Your task to perform on an android device: toggle show notifications on the lock screen Image 0: 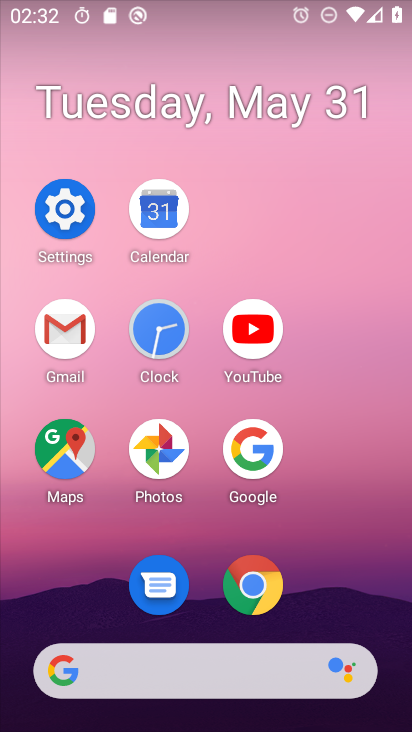
Step 0: click (52, 205)
Your task to perform on an android device: toggle show notifications on the lock screen Image 1: 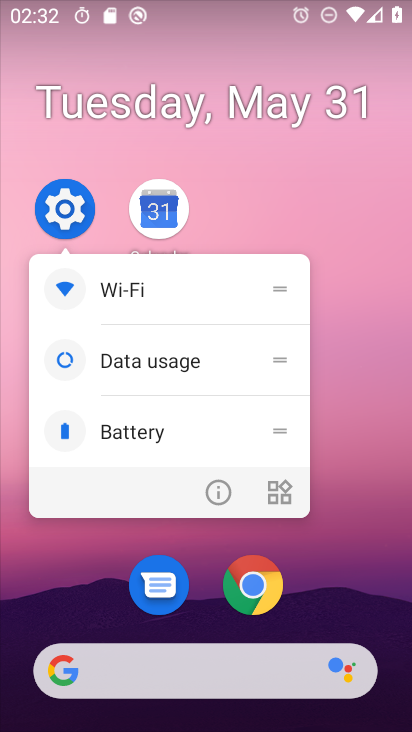
Step 1: click (63, 191)
Your task to perform on an android device: toggle show notifications on the lock screen Image 2: 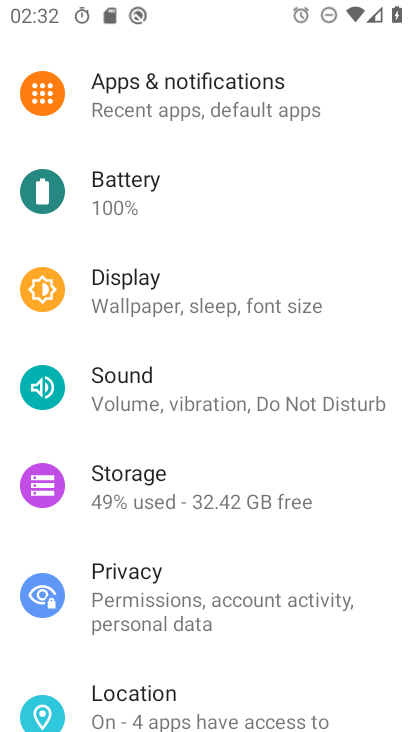
Step 2: click (201, 112)
Your task to perform on an android device: toggle show notifications on the lock screen Image 3: 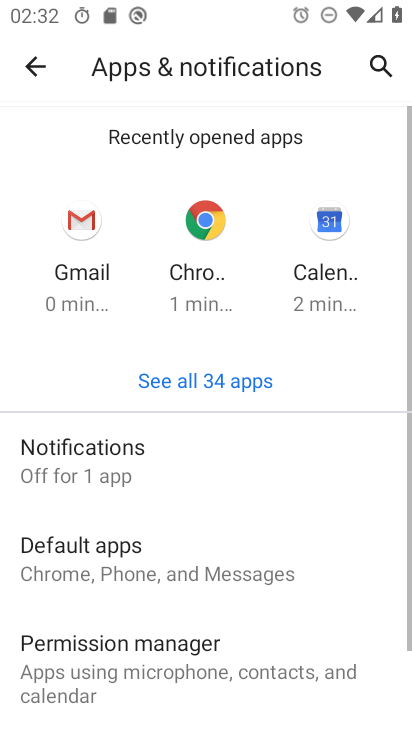
Step 3: drag from (173, 528) to (212, 150)
Your task to perform on an android device: toggle show notifications on the lock screen Image 4: 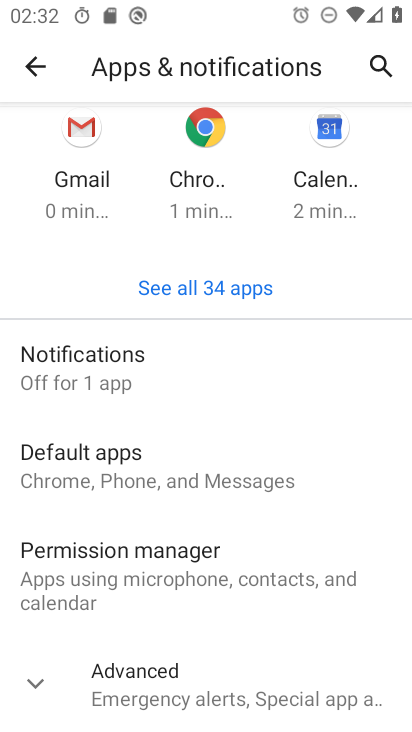
Step 4: click (211, 679)
Your task to perform on an android device: toggle show notifications on the lock screen Image 5: 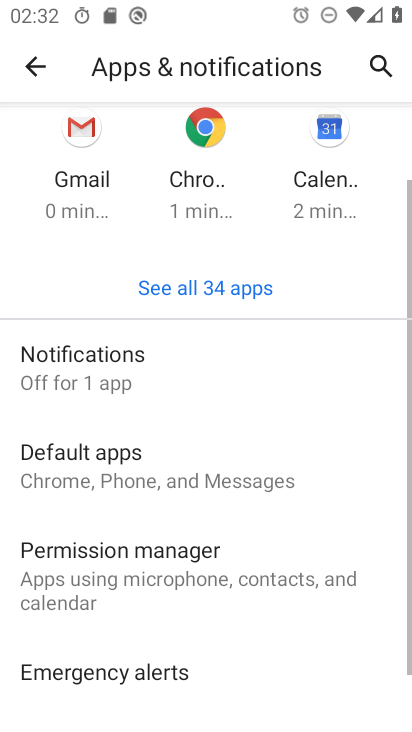
Step 5: drag from (208, 660) to (183, 253)
Your task to perform on an android device: toggle show notifications on the lock screen Image 6: 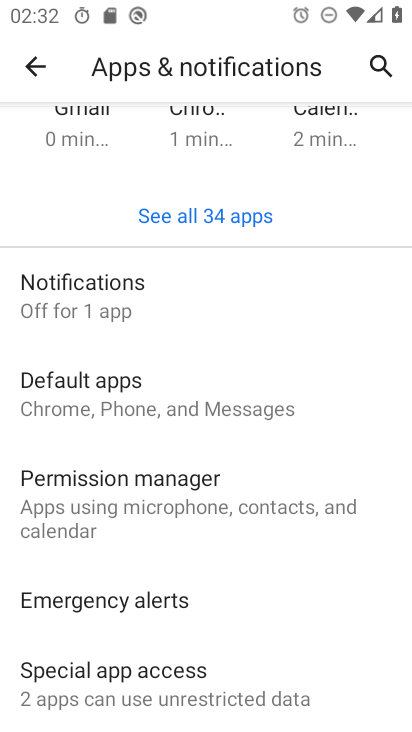
Step 6: click (103, 273)
Your task to perform on an android device: toggle show notifications on the lock screen Image 7: 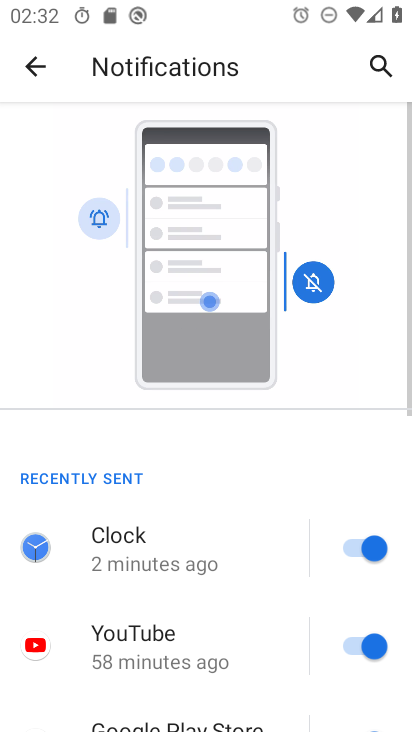
Step 7: drag from (216, 628) to (229, 232)
Your task to perform on an android device: toggle show notifications on the lock screen Image 8: 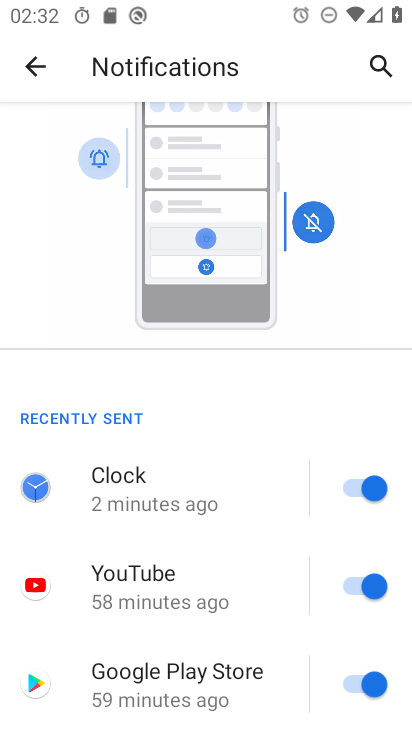
Step 8: drag from (177, 614) to (180, 212)
Your task to perform on an android device: toggle show notifications on the lock screen Image 9: 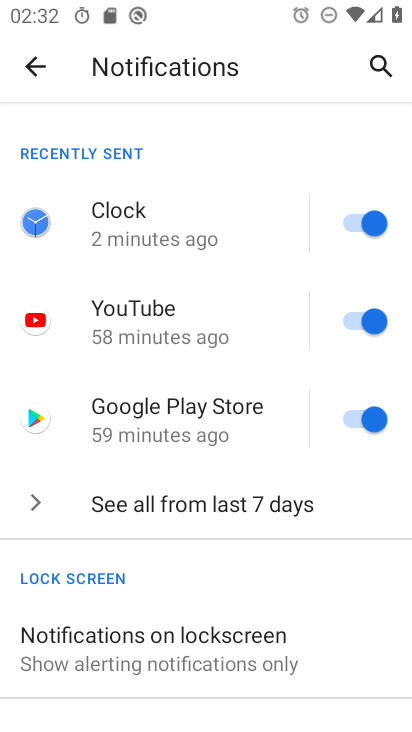
Step 9: click (206, 652)
Your task to perform on an android device: toggle show notifications on the lock screen Image 10: 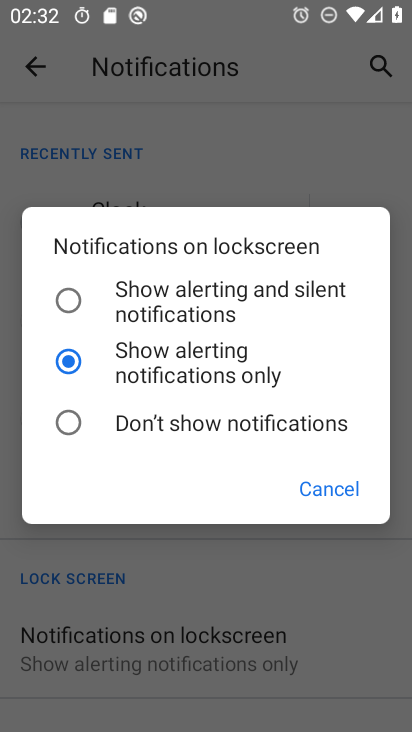
Step 10: click (180, 298)
Your task to perform on an android device: toggle show notifications on the lock screen Image 11: 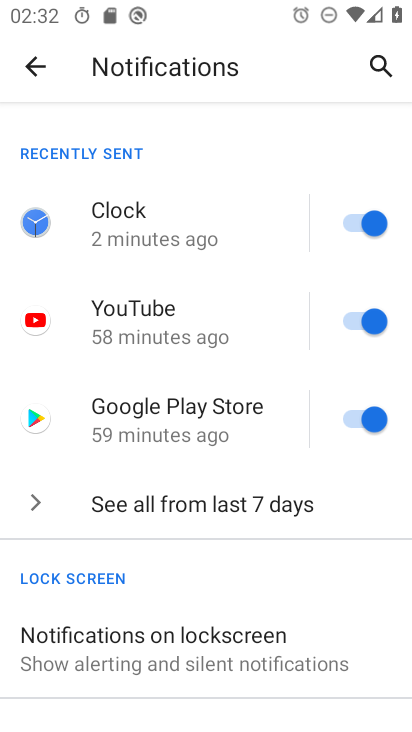
Step 11: task complete